Your task to perform on an android device: install app "Reddit" Image 0: 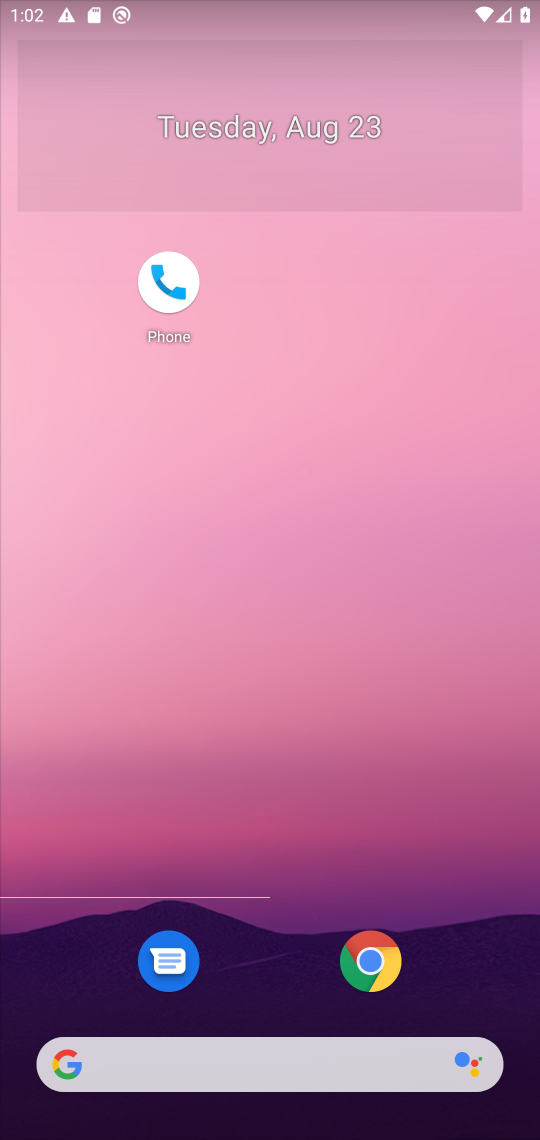
Step 0: press home button
Your task to perform on an android device: install app "Reddit" Image 1: 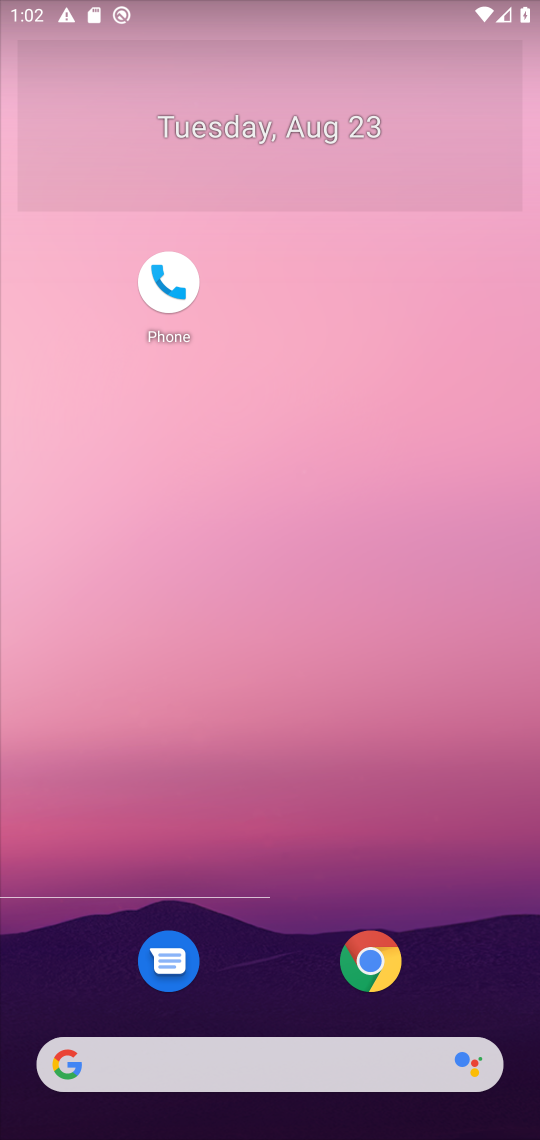
Step 1: drag from (261, 1005) to (244, 39)
Your task to perform on an android device: install app "Reddit" Image 2: 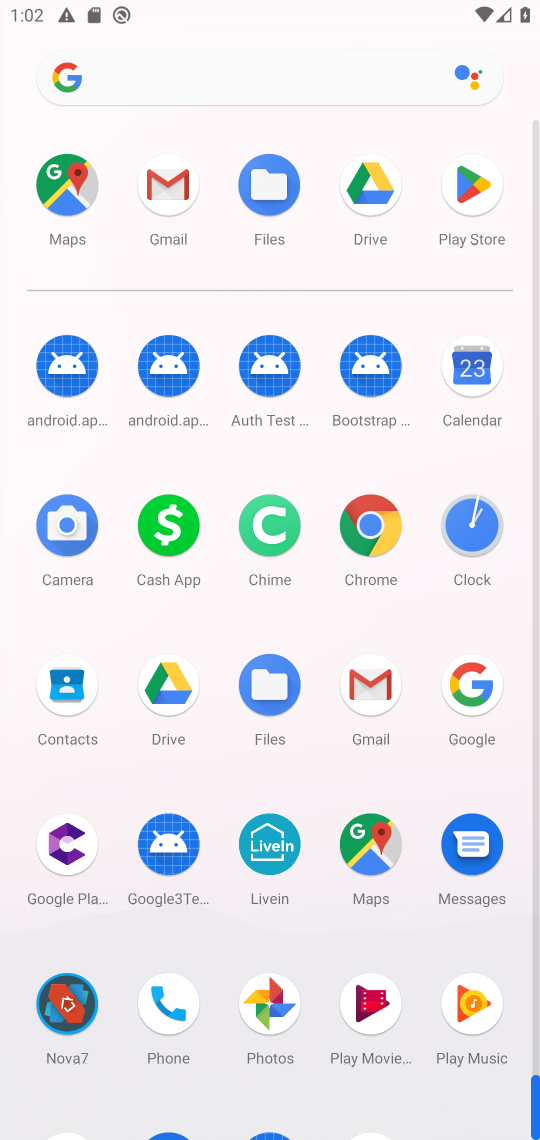
Step 2: click (463, 205)
Your task to perform on an android device: install app "Reddit" Image 3: 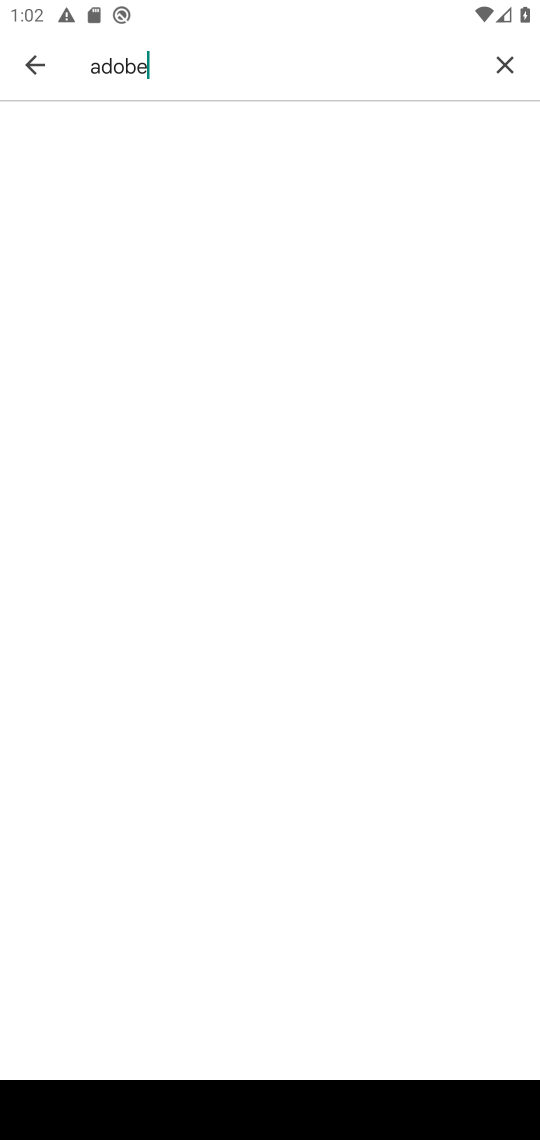
Step 3: click (501, 85)
Your task to perform on an android device: install app "Reddit" Image 4: 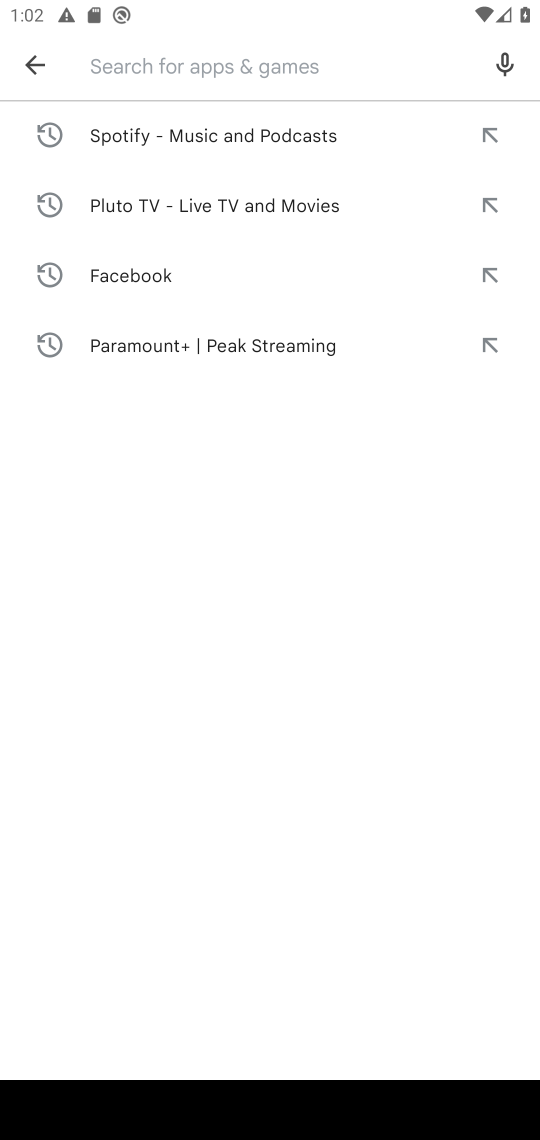
Step 4: type "reddit"
Your task to perform on an android device: install app "Reddit" Image 5: 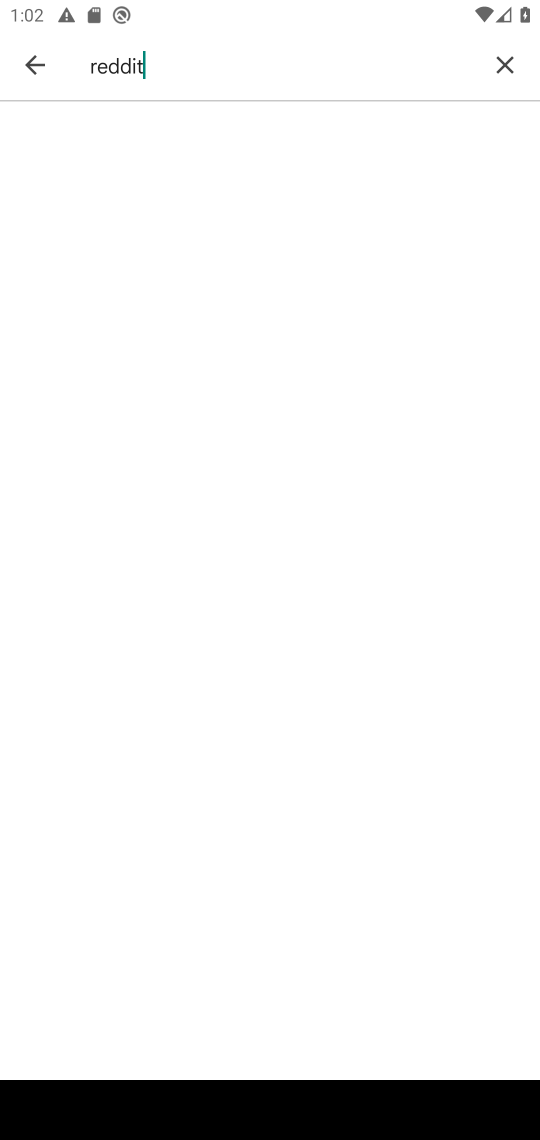
Step 5: task complete